Your task to perform on an android device: find snoozed emails in the gmail app Image 0: 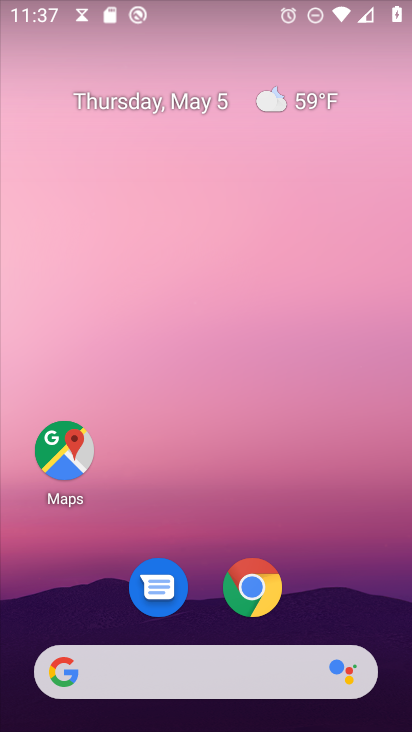
Step 0: drag from (299, 561) to (215, 0)
Your task to perform on an android device: find snoozed emails in the gmail app Image 1: 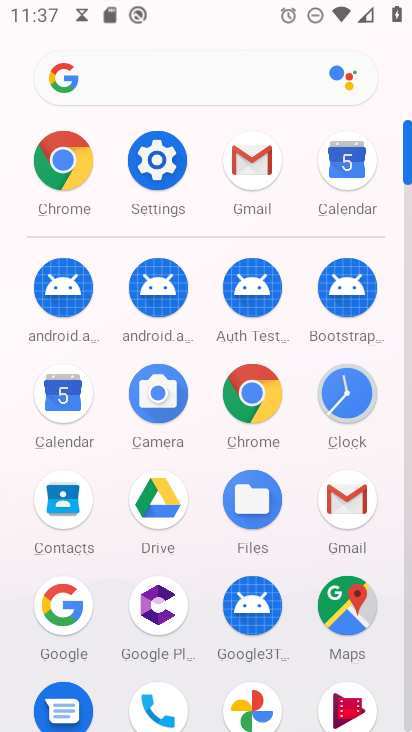
Step 1: click (345, 493)
Your task to perform on an android device: find snoozed emails in the gmail app Image 2: 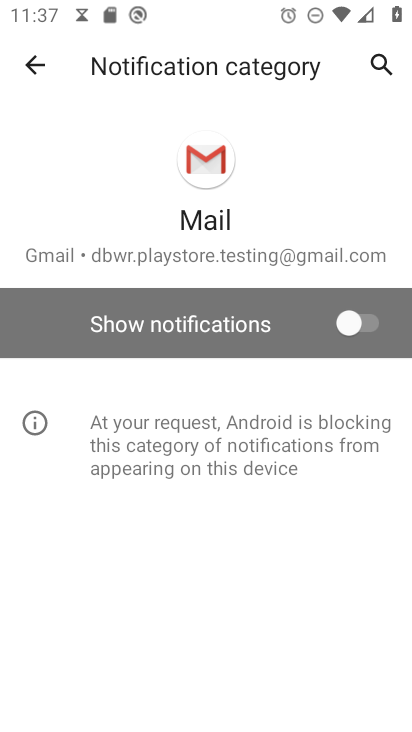
Step 2: click (26, 63)
Your task to perform on an android device: find snoozed emails in the gmail app Image 3: 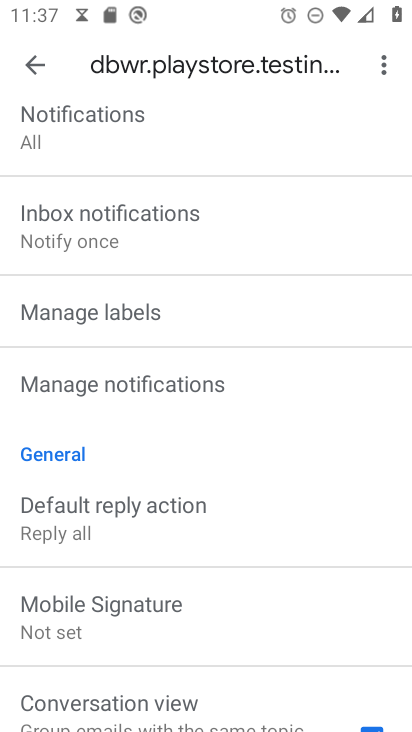
Step 3: click (31, 67)
Your task to perform on an android device: find snoozed emails in the gmail app Image 4: 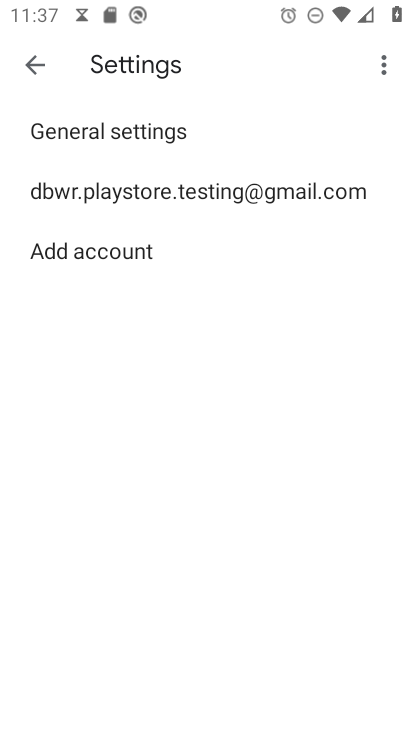
Step 4: click (31, 67)
Your task to perform on an android device: find snoozed emails in the gmail app Image 5: 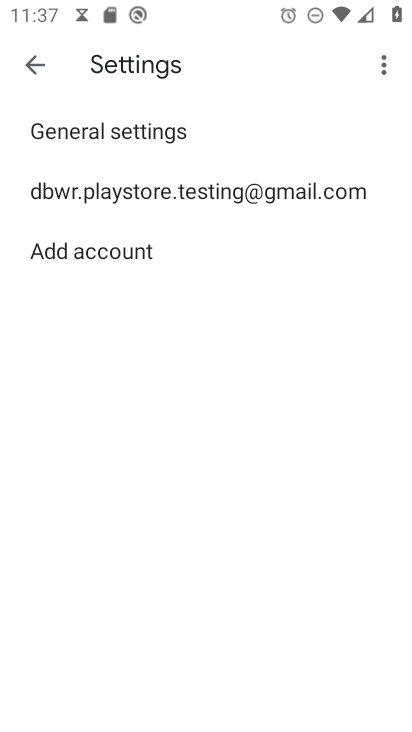
Step 5: click (31, 67)
Your task to perform on an android device: find snoozed emails in the gmail app Image 6: 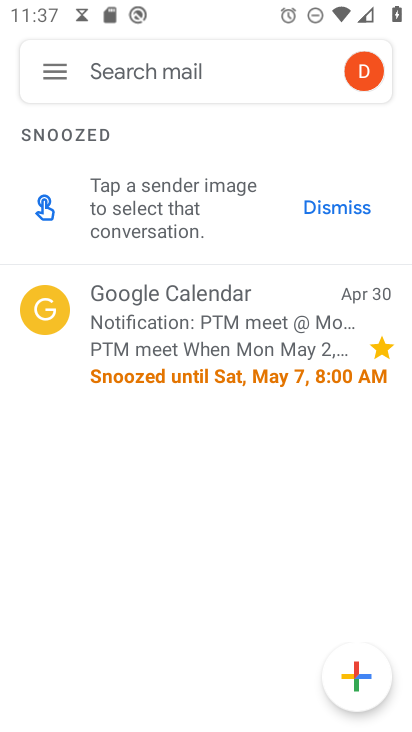
Step 6: click (47, 69)
Your task to perform on an android device: find snoozed emails in the gmail app Image 7: 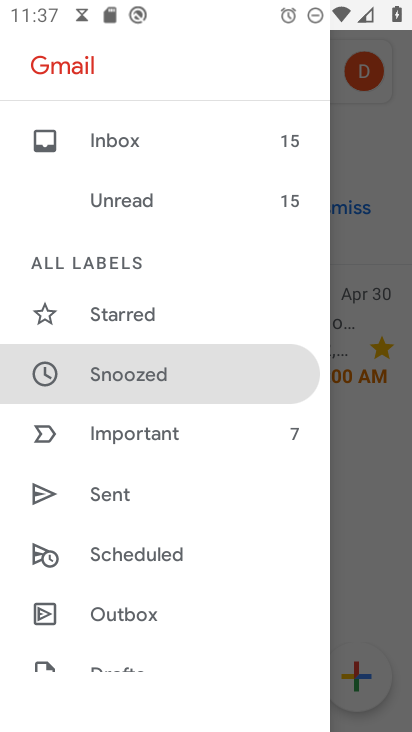
Step 7: click (113, 358)
Your task to perform on an android device: find snoozed emails in the gmail app Image 8: 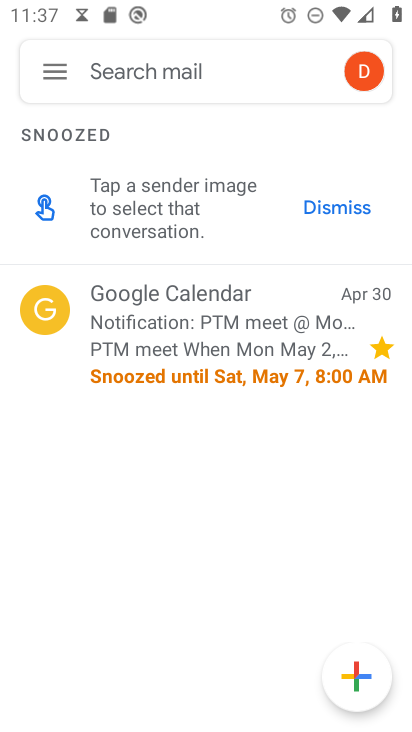
Step 8: task complete